Your task to perform on an android device: turn off picture-in-picture Image 0: 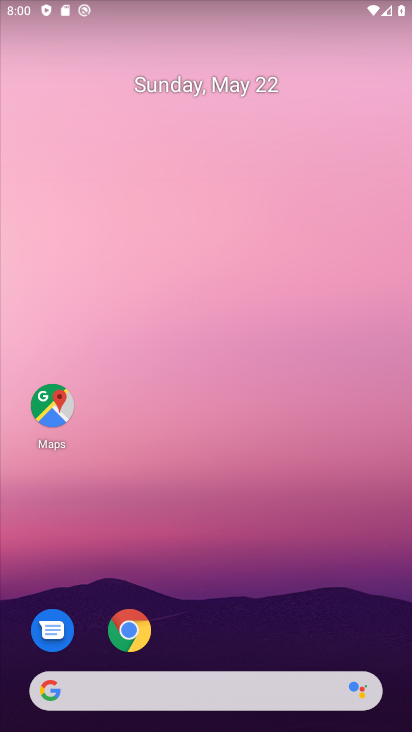
Step 0: drag from (247, 630) to (316, 67)
Your task to perform on an android device: turn off picture-in-picture Image 1: 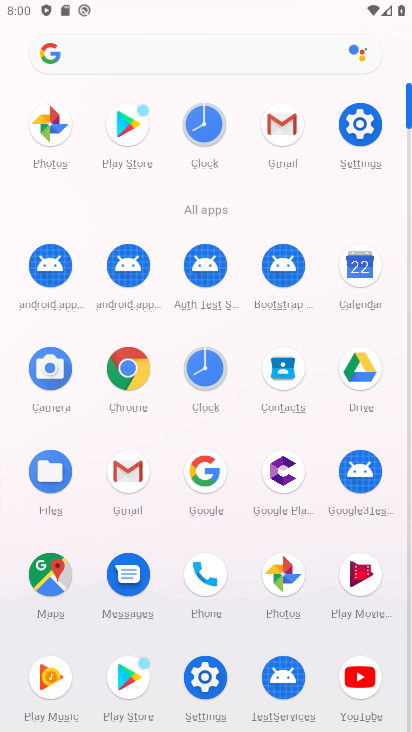
Step 1: click (351, 113)
Your task to perform on an android device: turn off picture-in-picture Image 2: 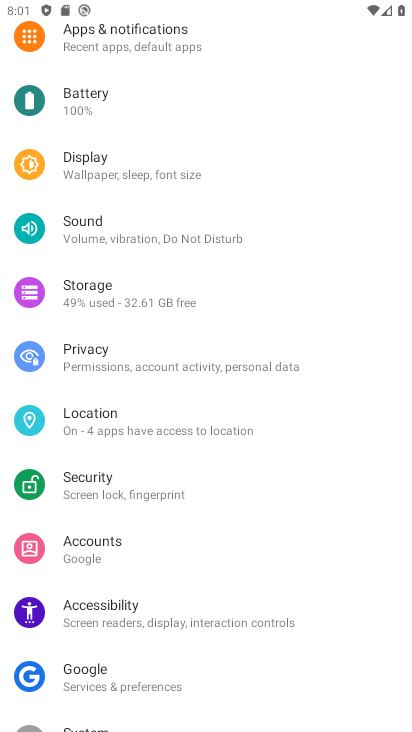
Step 2: click (182, 57)
Your task to perform on an android device: turn off picture-in-picture Image 3: 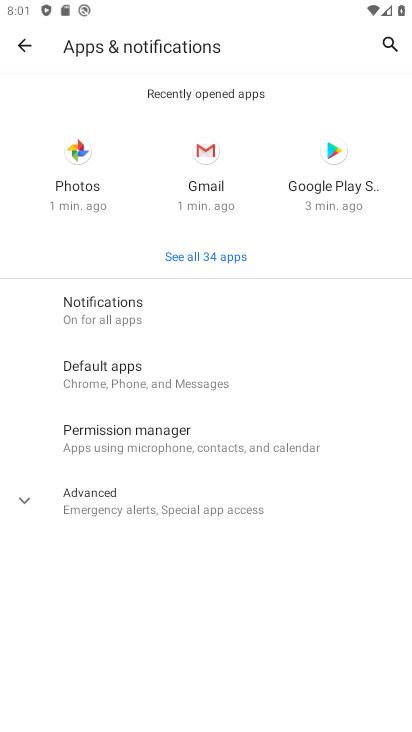
Step 3: click (193, 500)
Your task to perform on an android device: turn off picture-in-picture Image 4: 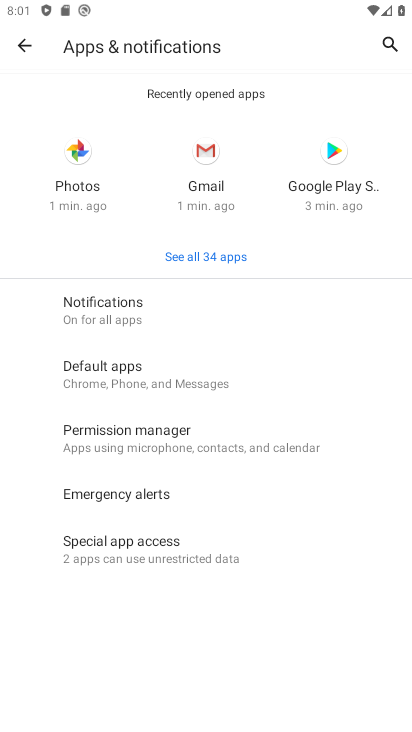
Step 4: click (198, 555)
Your task to perform on an android device: turn off picture-in-picture Image 5: 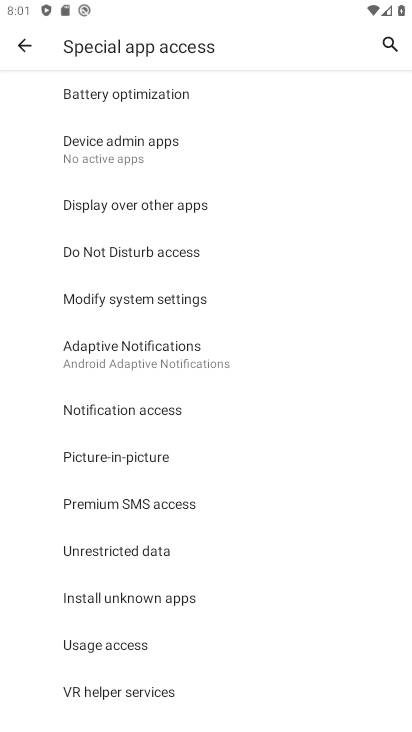
Step 5: click (162, 463)
Your task to perform on an android device: turn off picture-in-picture Image 6: 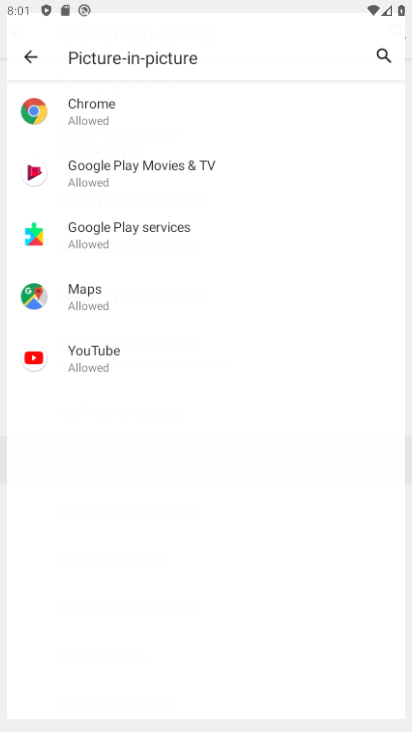
Step 6: task complete